Your task to perform on an android device: Go to Amazon Image 0: 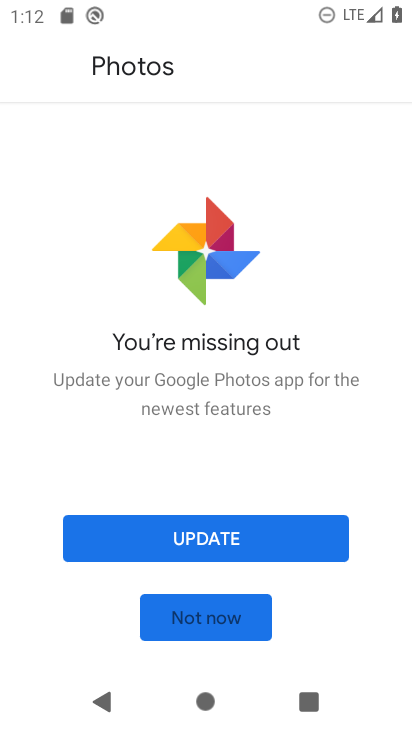
Step 0: press home button
Your task to perform on an android device: Go to Amazon Image 1: 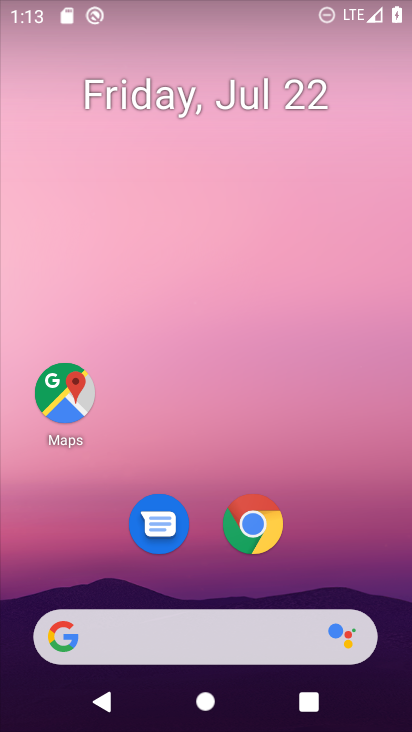
Step 1: click (258, 536)
Your task to perform on an android device: Go to Amazon Image 2: 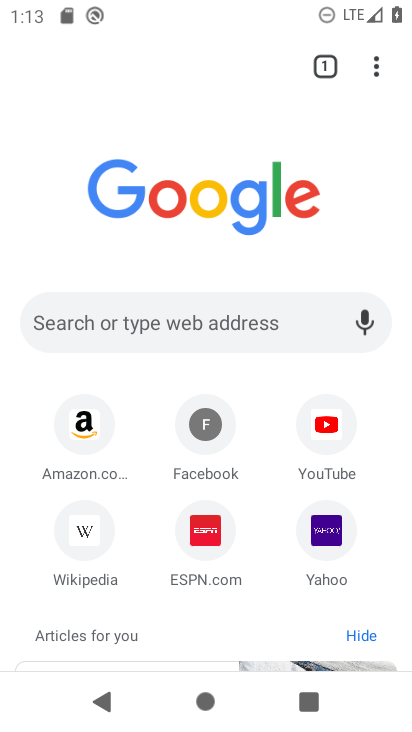
Step 2: click (87, 418)
Your task to perform on an android device: Go to Amazon Image 3: 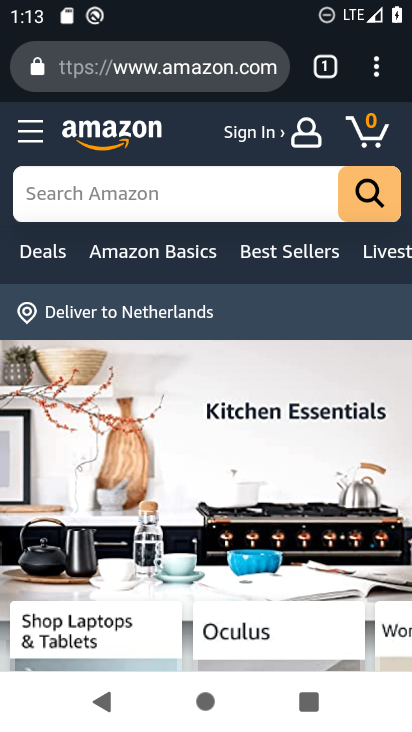
Step 3: task complete